Your task to perform on an android device: Search for hotels in Buenos aires Image 0: 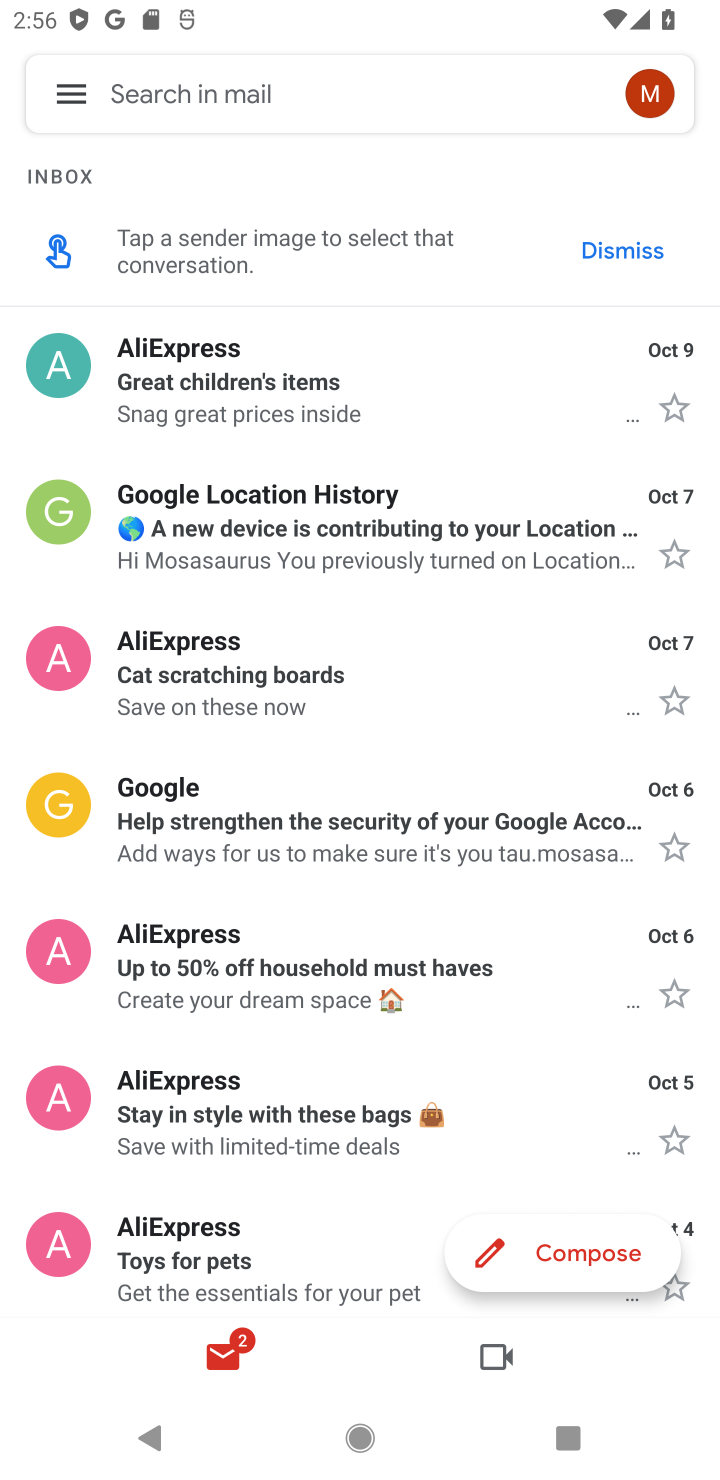
Step 0: press home button
Your task to perform on an android device: Search for hotels in Buenos aires Image 1: 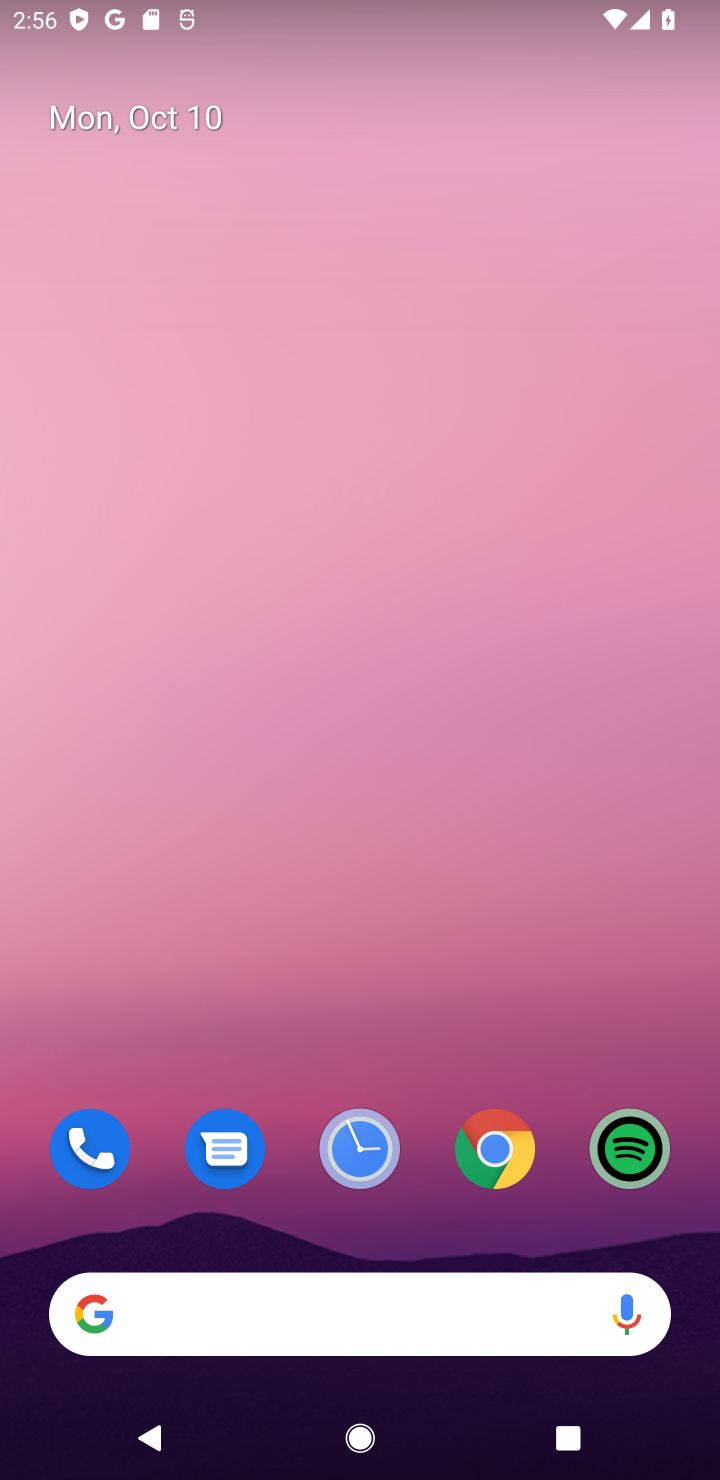
Step 1: click (320, 1300)
Your task to perform on an android device: Search for hotels in Buenos aires Image 2: 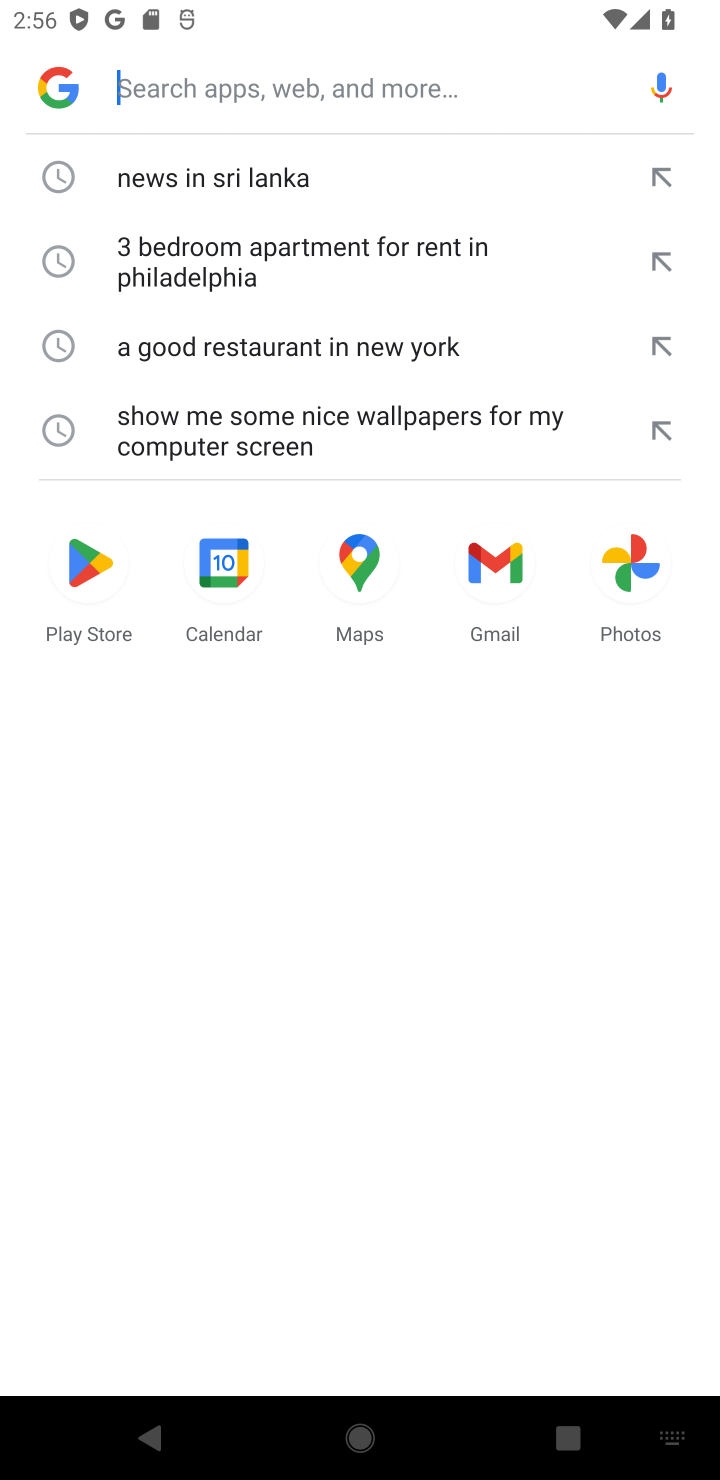
Step 2: type "hotels in Buenos aires"
Your task to perform on an android device: Search for hotels in Buenos aires Image 3: 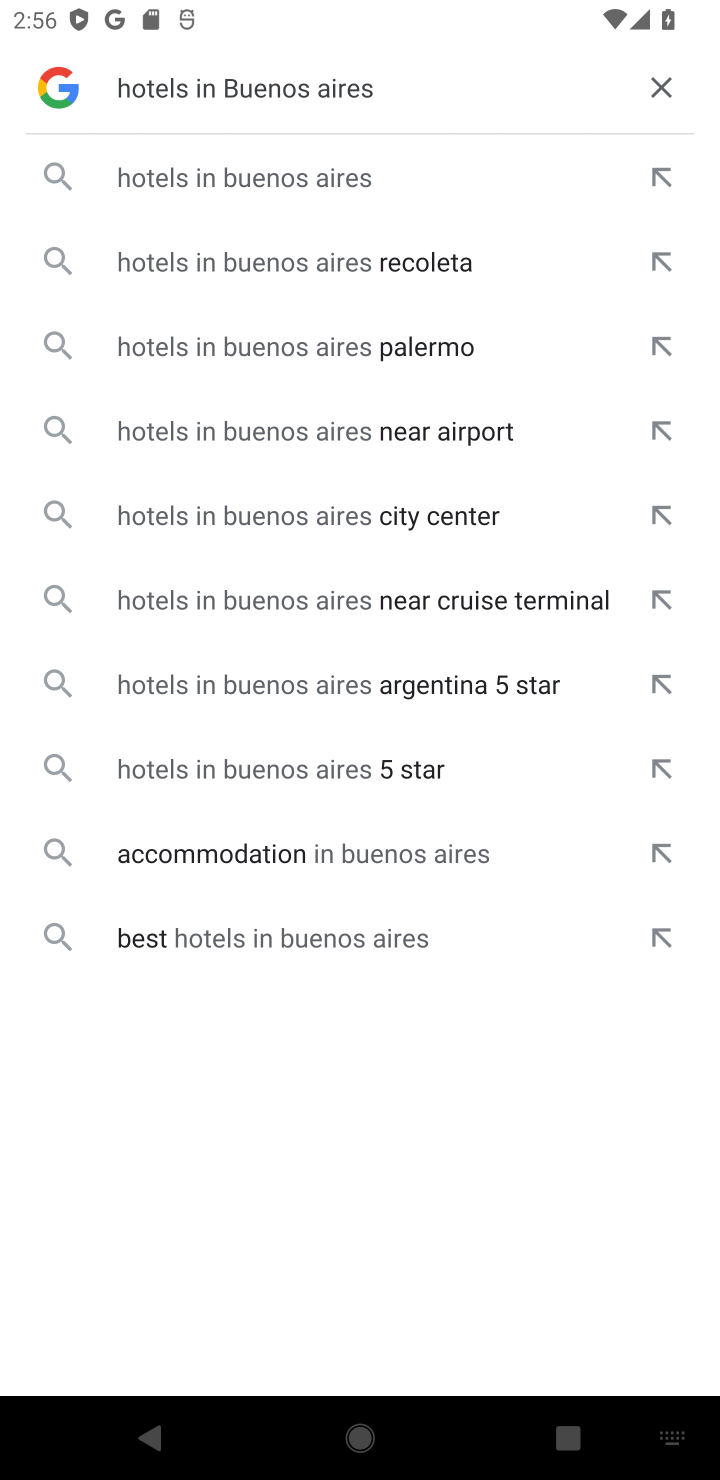
Step 3: click (262, 214)
Your task to perform on an android device: Search for hotels in Buenos aires Image 4: 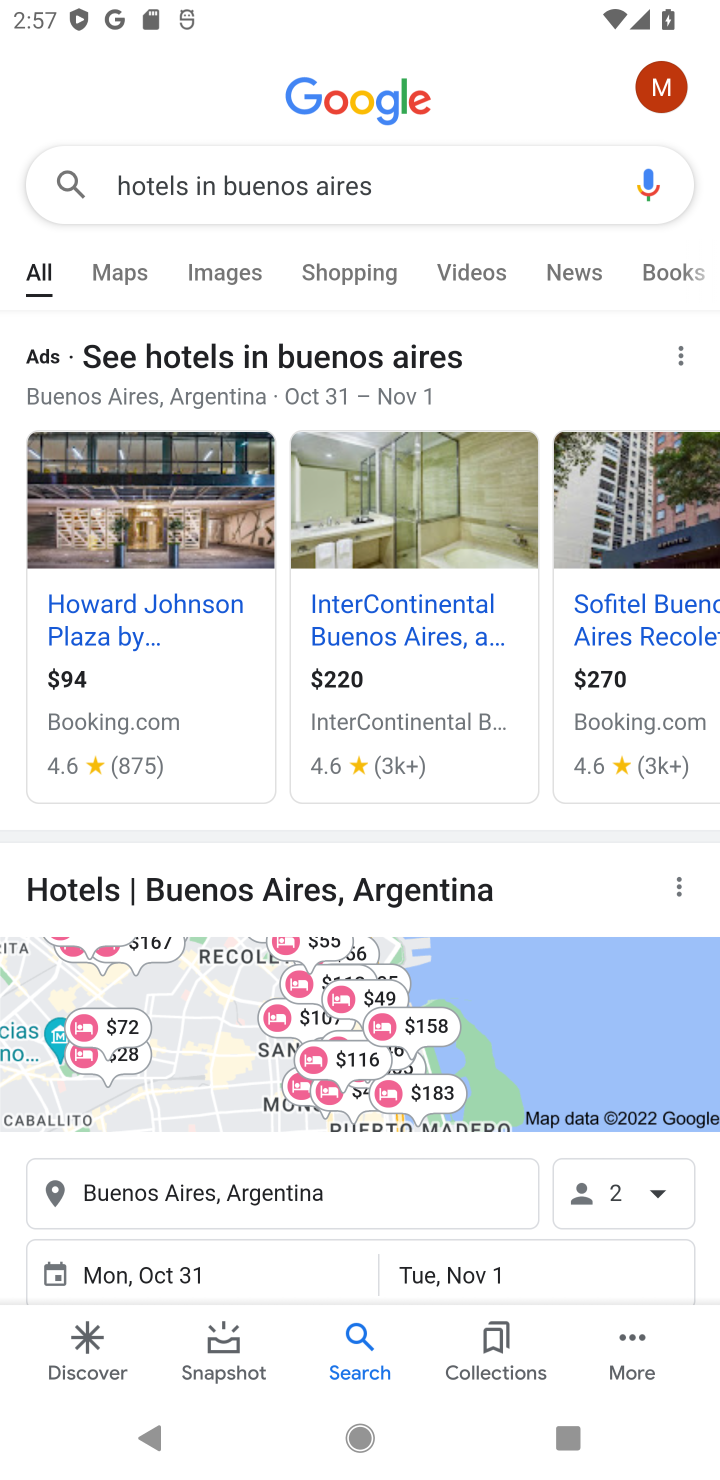
Step 4: task complete